Your task to perform on an android device: open the mobile data screen to see how much data has been used Image 0: 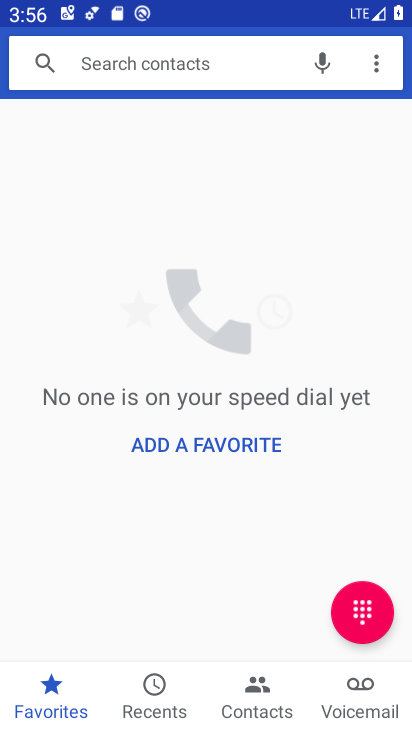
Step 0: press back button
Your task to perform on an android device: open the mobile data screen to see how much data has been used Image 1: 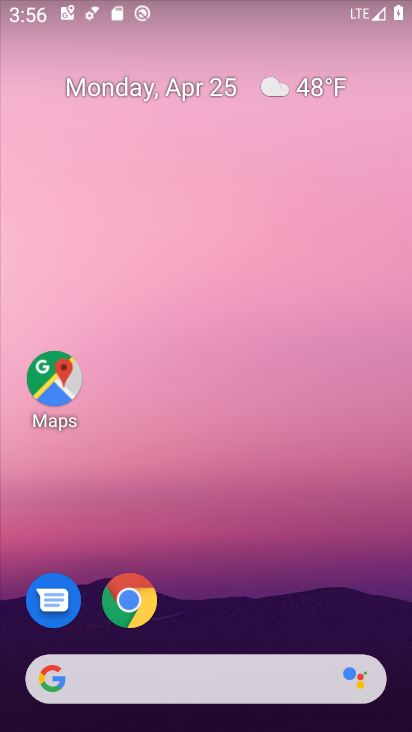
Step 1: drag from (258, 577) to (235, 49)
Your task to perform on an android device: open the mobile data screen to see how much data has been used Image 2: 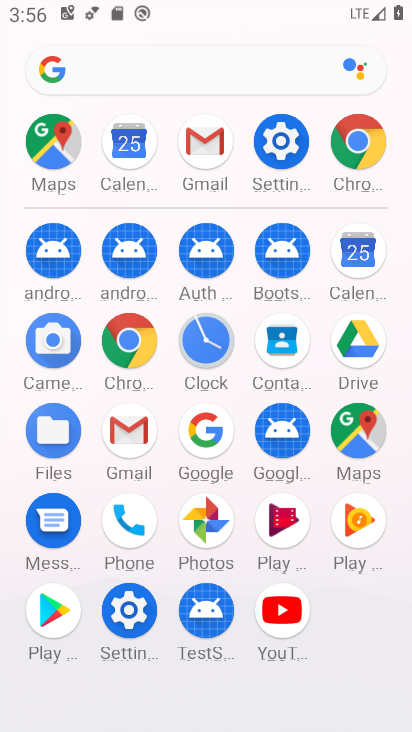
Step 2: drag from (12, 459) to (14, 255)
Your task to perform on an android device: open the mobile data screen to see how much data has been used Image 3: 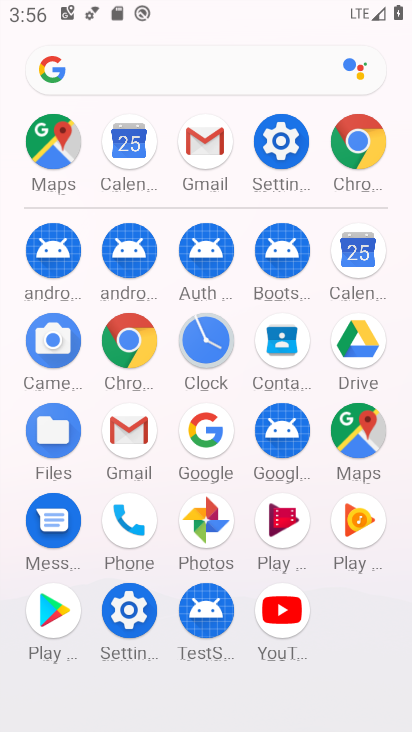
Step 3: drag from (8, 491) to (19, 270)
Your task to perform on an android device: open the mobile data screen to see how much data has been used Image 4: 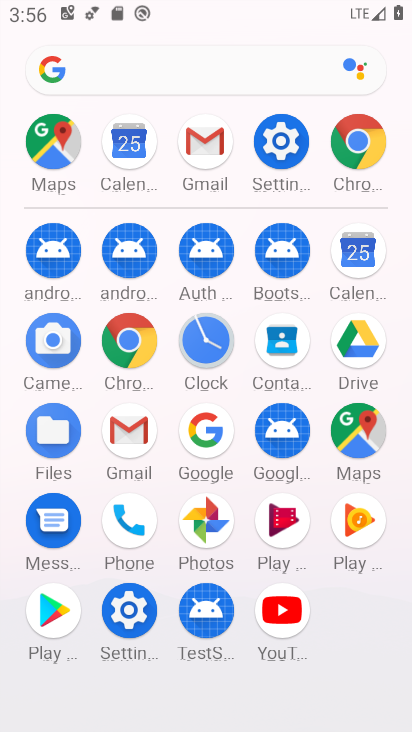
Step 4: click (122, 609)
Your task to perform on an android device: open the mobile data screen to see how much data has been used Image 5: 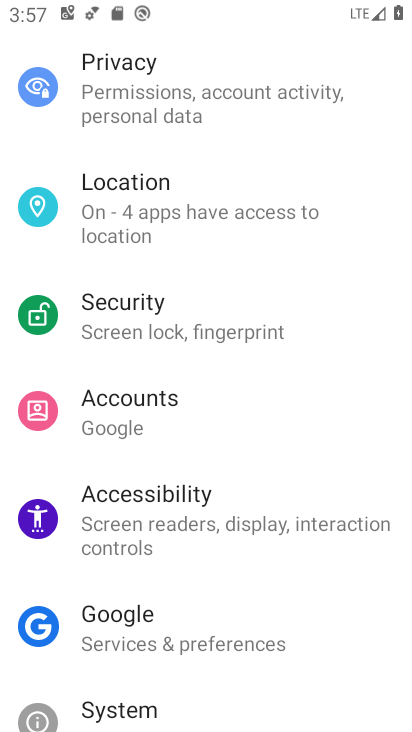
Step 5: drag from (243, 163) to (253, 517)
Your task to perform on an android device: open the mobile data screen to see how much data has been used Image 6: 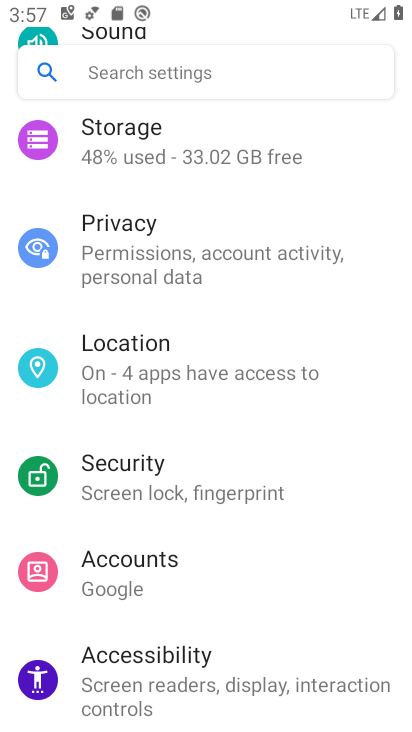
Step 6: drag from (212, 296) to (222, 652)
Your task to perform on an android device: open the mobile data screen to see how much data has been used Image 7: 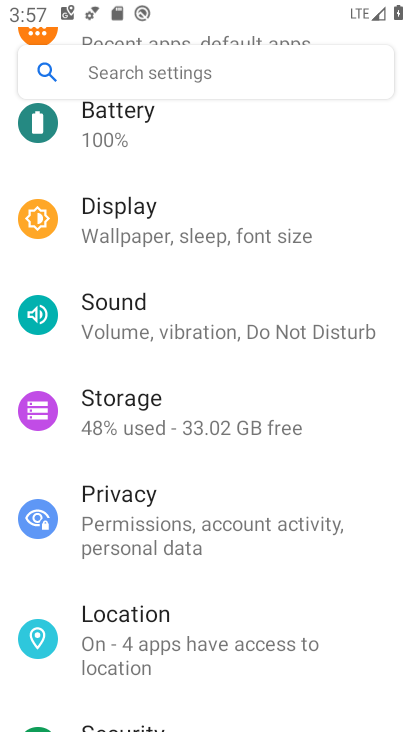
Step 7: drag from (213, 213) to (237, 642)
Your task to perform on an android device: open the mobile data screen to see how much data has been used Image 8: 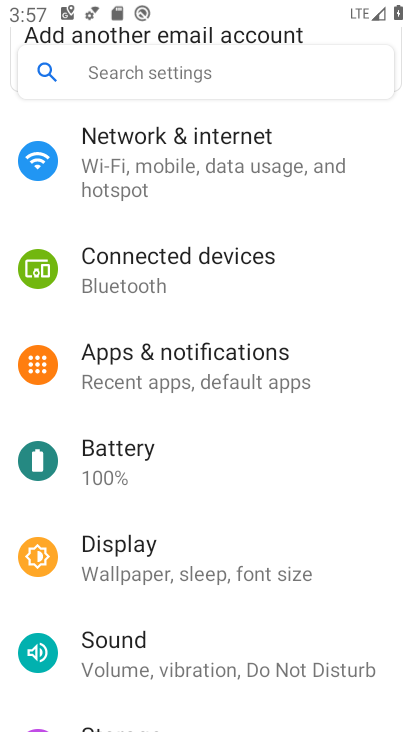
Step 8: drag from (218, 285) to (235, 606)
Your task to perform on an android device: open the mobile data screen to see how much data has been used Image 9: 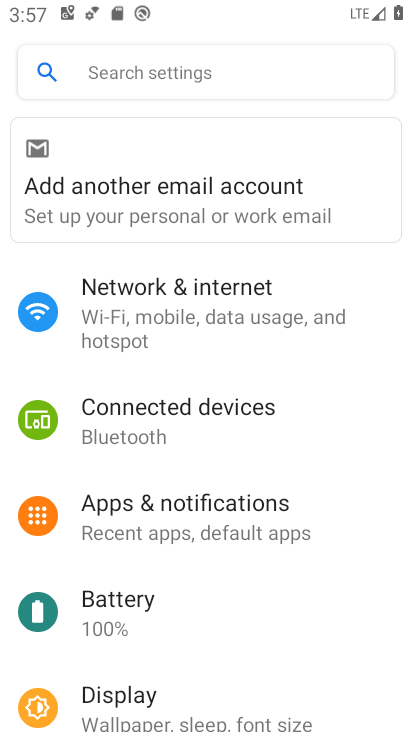
Step 9: click (222, 316)
Your task to perform on an android device: open the mobile data screen to see how much data has been used Image 10: 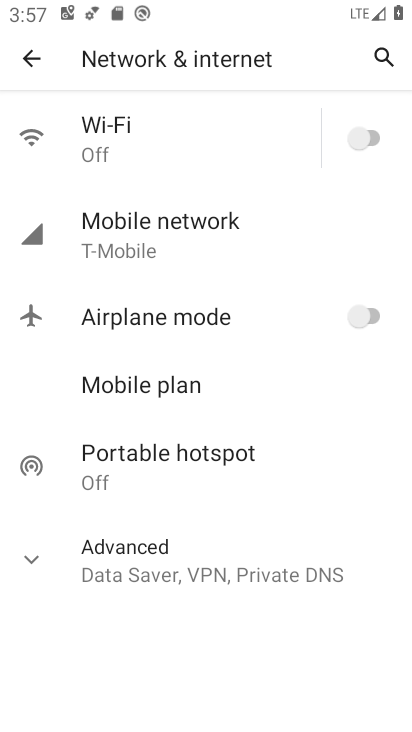
Step 10: click (174, 257)
Your task to perform on an android device: open the mobile data screen to see how much data has been used Image 11: 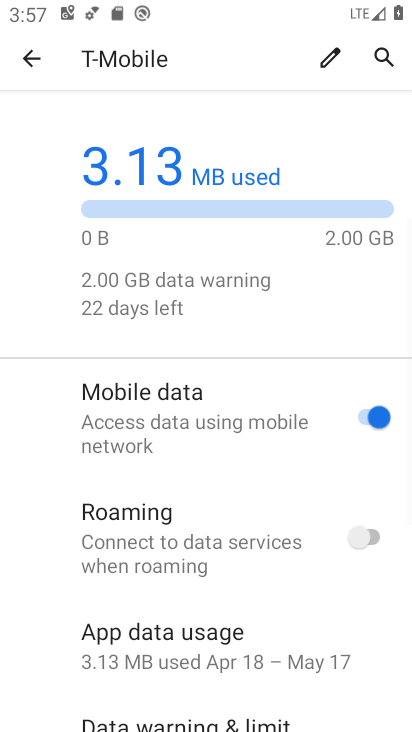
Step 11: task complete